Your task to perform on an android device: toggle javascript in the chrome app Image 0: 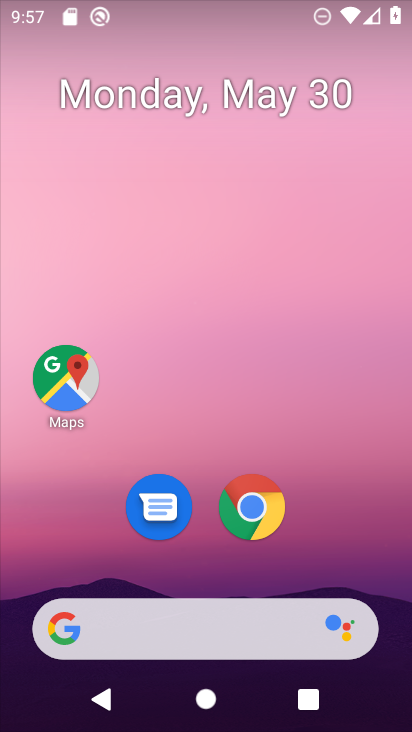
Step 0: click (267, 514)
Your task to perform on an android device: toggle javascript in the chrome app Image 1: 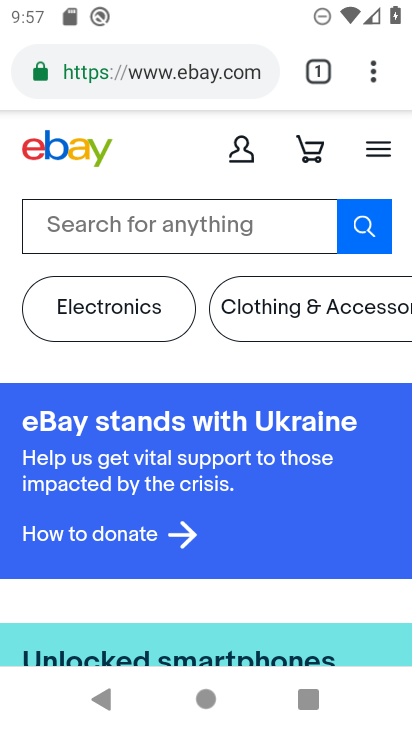
Step 1: click (367, 82)
Your task to perform on an android device: toggle javascript in the chrome app Image 2: 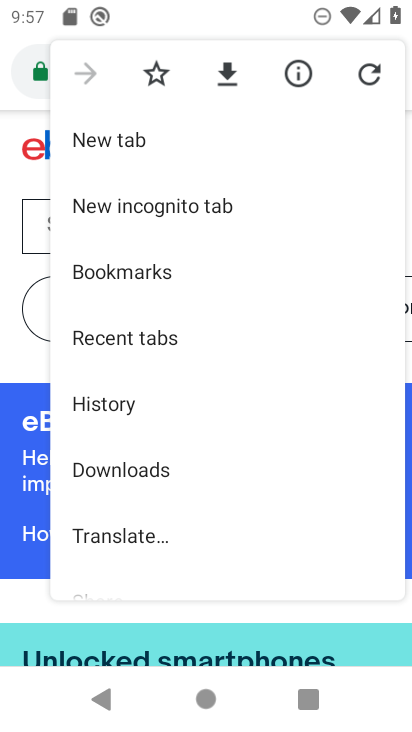
Step 2: drag from (225, 530) to (227, 137)
Your task to perform on an android device: toggle javascript in the chrome app Image 3: 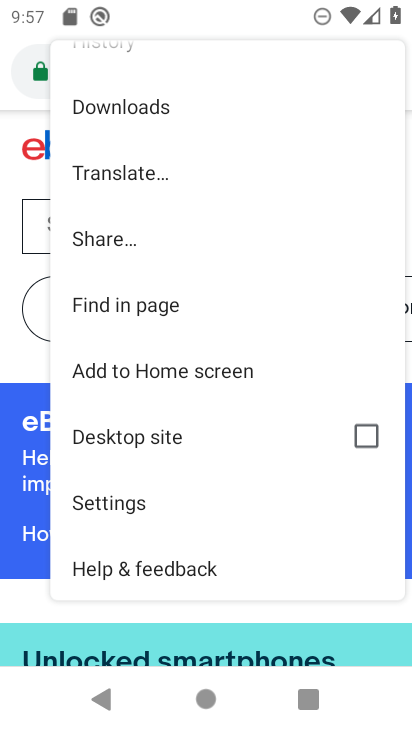
Step 3: click (132, 503)
Your task to perform on an android device: toggle javascript in the chrome app Image 4: 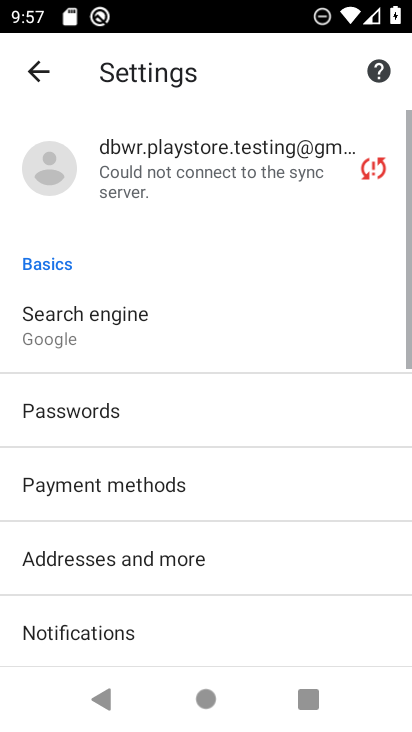
Step 4: drag from (198, 500) to (203, 239)
Your task to perform on an android device: toggle javascript in the chrome app Image 5: 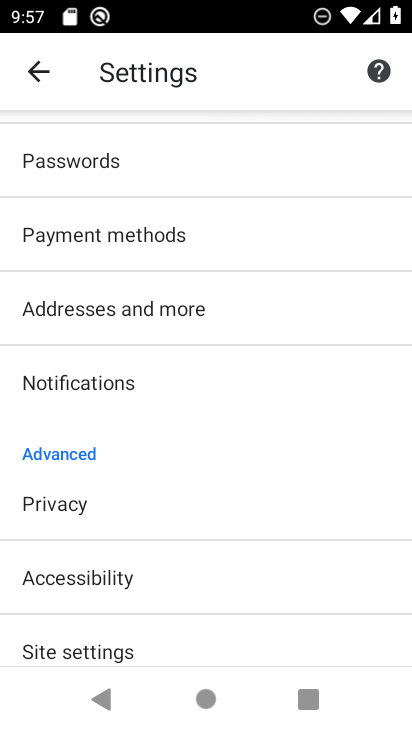
Step 5: click (104, 641)
Your task to perform on an android device: toggle javascript in the chrome app Image 6: 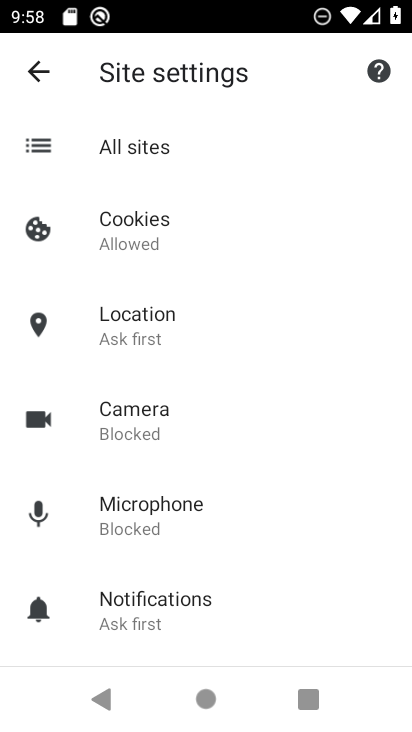
Step 6: drag from (312, 548) to (273, 152)
Your task to perform on an android device: toggle javascript in the chrome app Image 7: 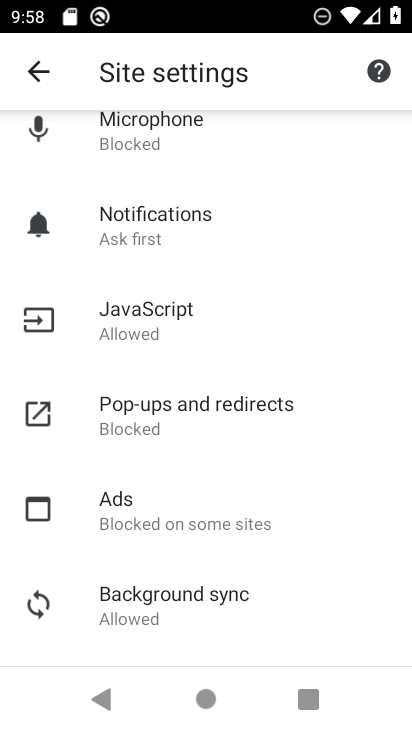
Step 7: click (159, 333)
Your task to perform on an android device: toggle javascript in the chrome app Image 8: 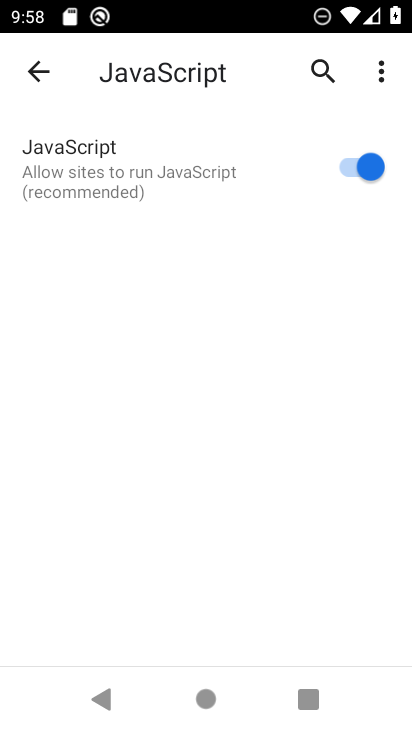
Step 8: click (359, 170)
Your task to perform on an android device: toggle javascript in the chrome app Image 9: 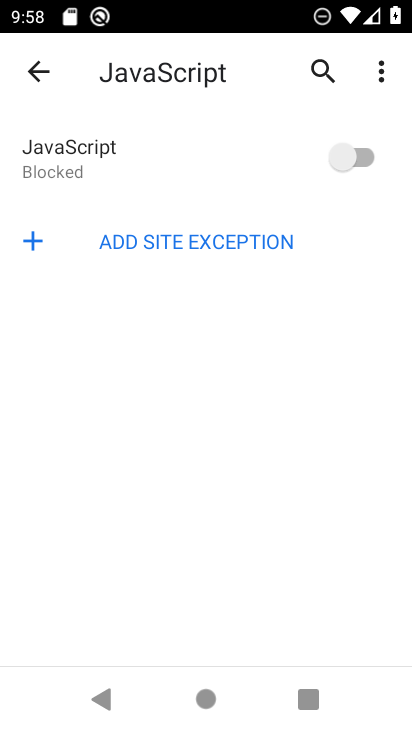
Step 9: task complete